Your task to perform on an android device: What's on my calendar today? Image 0: 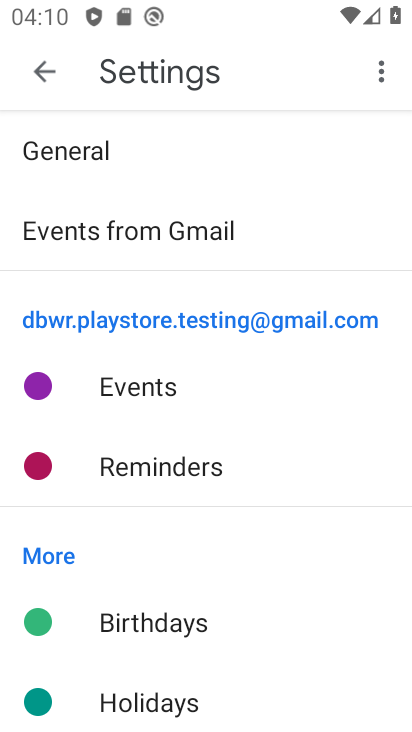
Step 0: press home button
Your task to perform on an android device: What's on my calendar today? Image 1: 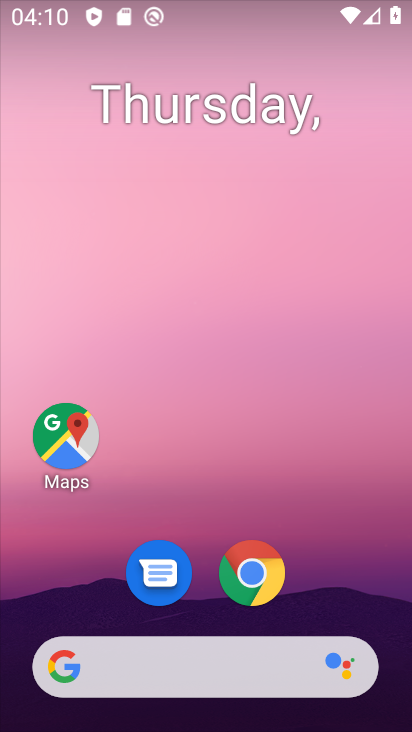
Step 1: drag from (392, 619) to (307, 232)
Your task to perform on an android device: What's on my calendar today? Image 2: 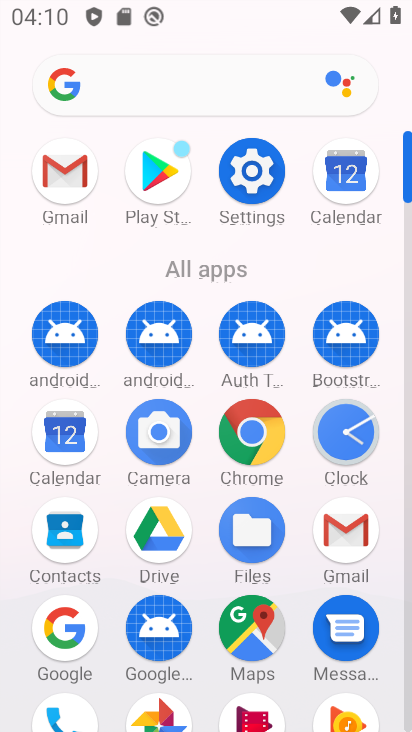
Step 2: click (404, 699)
Your task to perform on an android device: What's on my calendar today? Image 3: 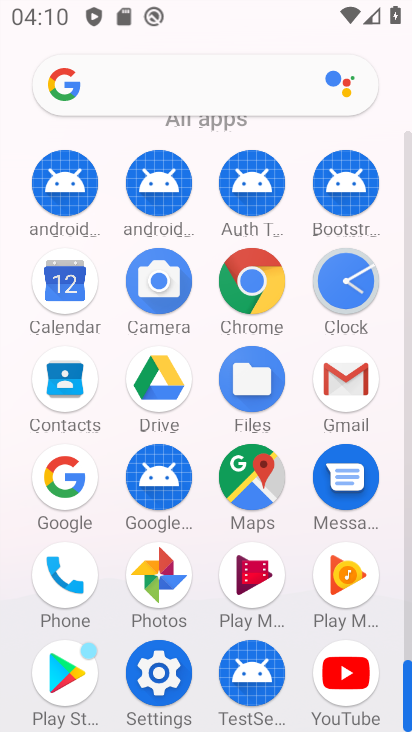
Step 3: click (61, 282)
Your task to perform on an android device: What's on my calendar today? Image 4: 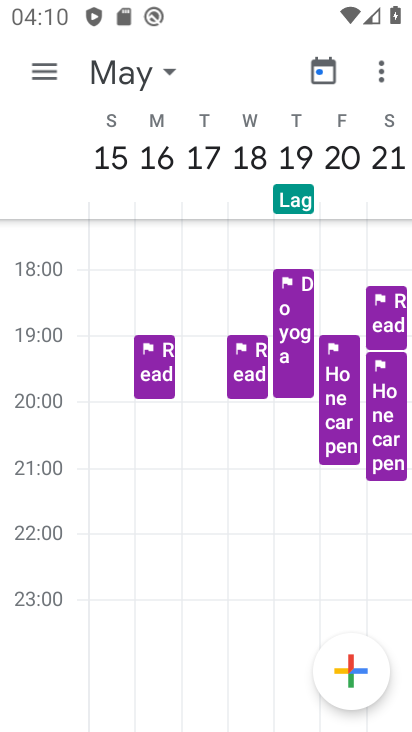
Step 4: click (47, 69)
Your task to perform on an android device: What's on my calendar today? Image 5: 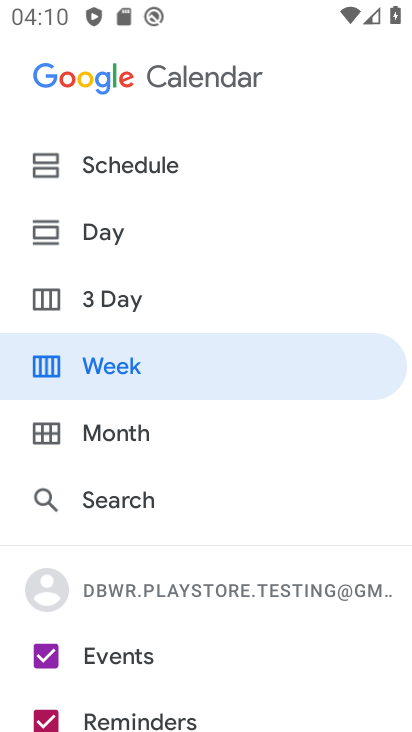
Step 5: click (106, 233)
Your task to perform on an android device: What's on my calendar today? Image 6: 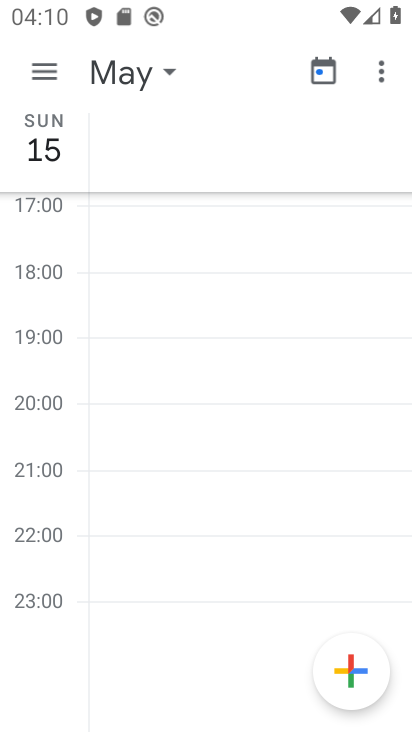
Step 6: click (142, 72)
Your task to perform on an android device: What's on my calendar today? Image 7: 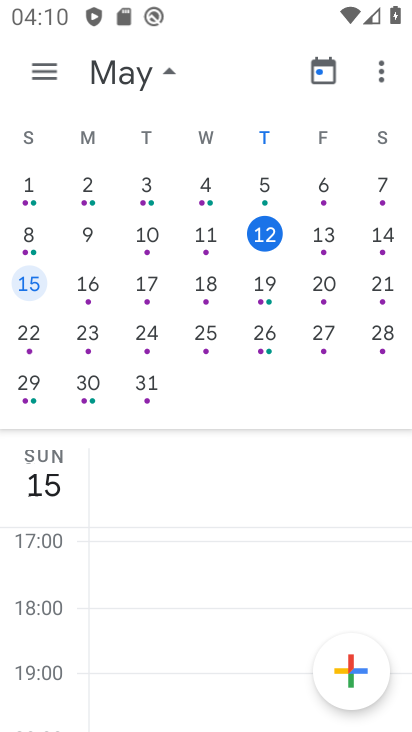
Step 7: click (262, 240)
Your task to perform on an android device: What's on my calendar today? Image 8: 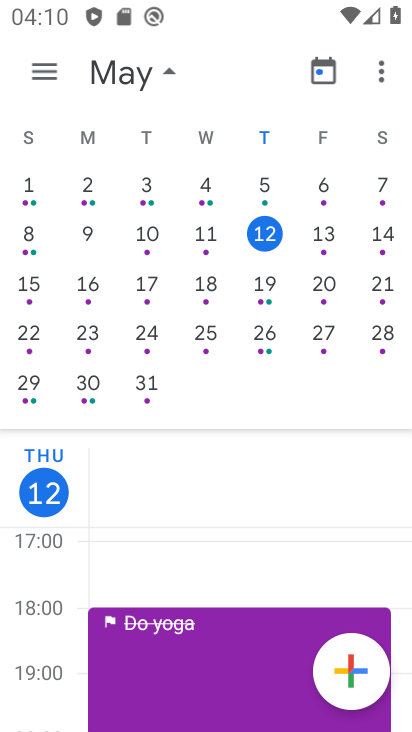
Step 8: task complete